Your task to perform on an android device: refresh tabs in the chrome app Image 0: 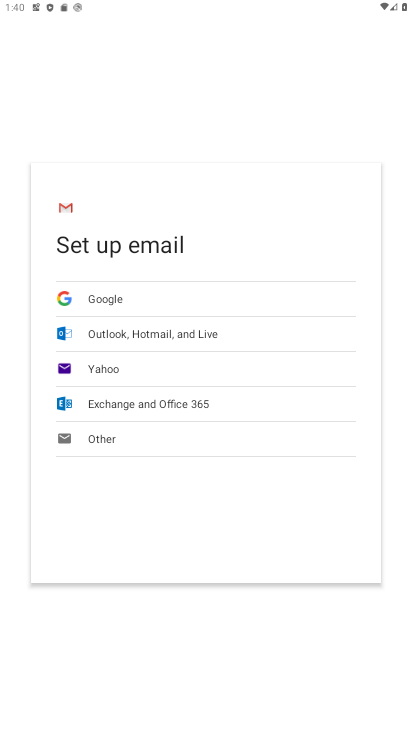
Step 0: press home button
Your task to perform on an android device: refresh tabs in the chrome app Image 1: 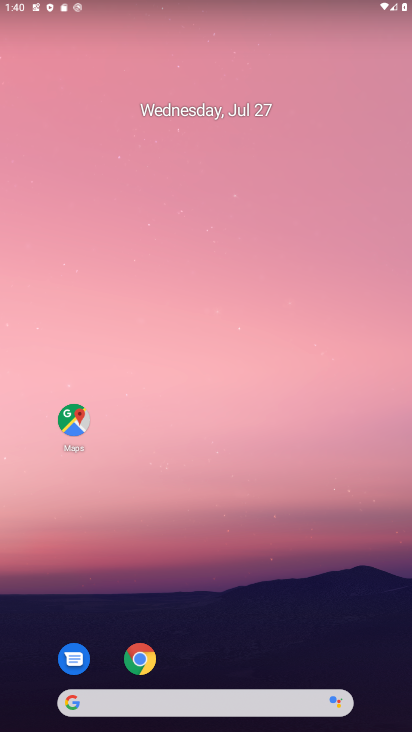
Step 1: drag from (319, 625) to (271, 49)
Your task to perform on an android device: refresh tabs in the chrome app Image 2: 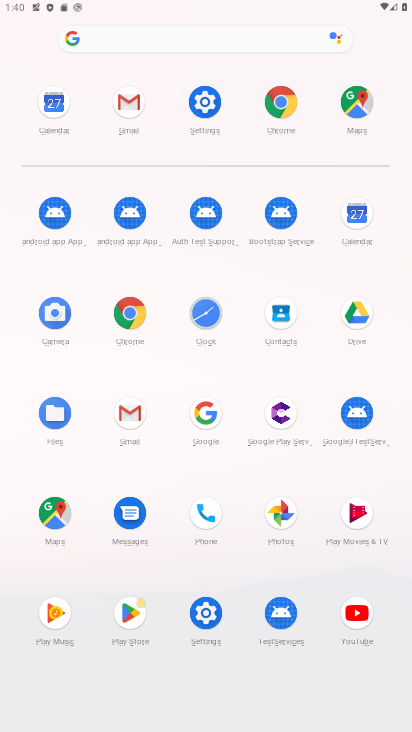
Step 2: click (285, 99)
Your task to perform on an android device: refresh tabs in the chrome app Image 3: 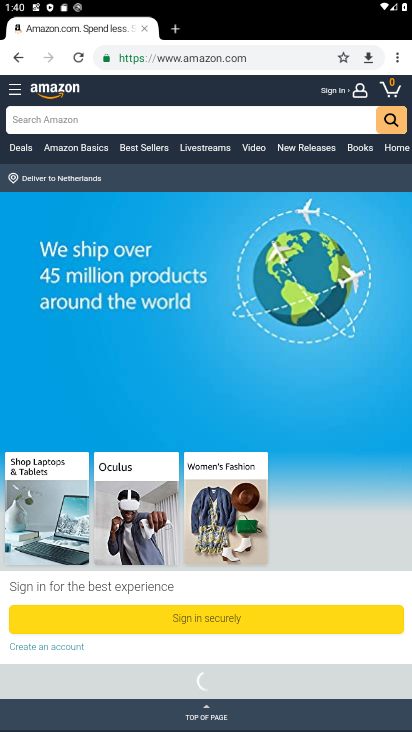
Step 3: click (402, 52)
Your task to perform on an android device: refresh tabs in the chrome app Image 4: 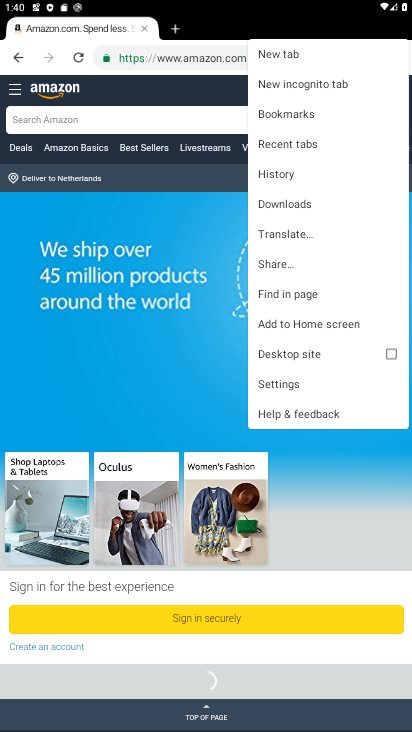
Step 4: click (79, 59)
Your task to perform on an android device: refresh tabs in the chrome app Image 5: 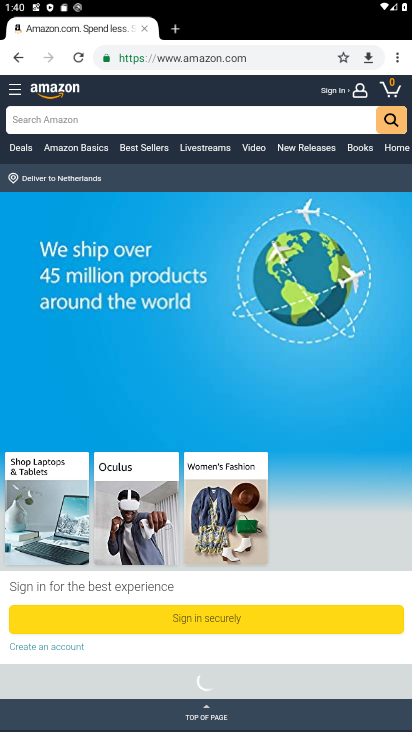
Step 5: click (79, 53)
Your task to perform on an android device: refresh tabs in the chrome app Image 6: 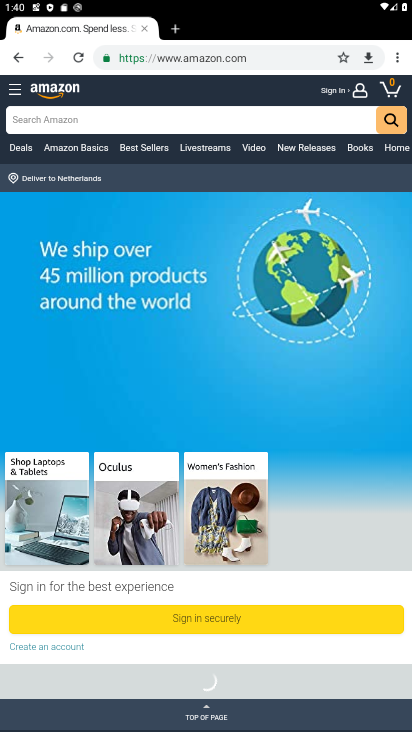
Step 6: task complete